Your task to perform on an android device: Show the shopping cart on ebay.com. Add "logitech g933" to the cart on ebay.com Image 0: 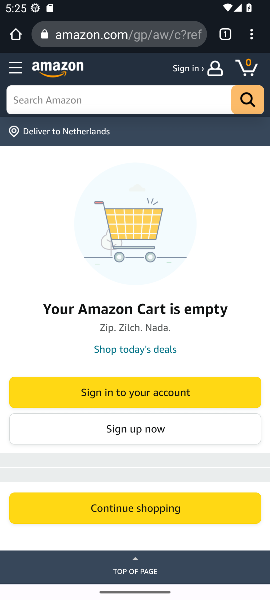
Step 0: press home button
Your task to perform on an android device: Show the shopping cart on ebay.com. Add "logitech g933" to the cart on ebay.com Image 1: 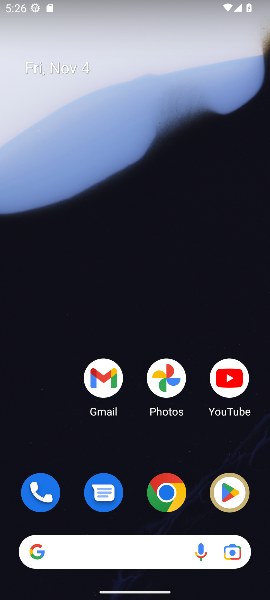
Step 1: drag from (140, 459) to (52, 3)
Your task to perform on an android device: Show the shopping cart on ebay.com. Add "logitech g933" to the cart on ebay.com Image 2: 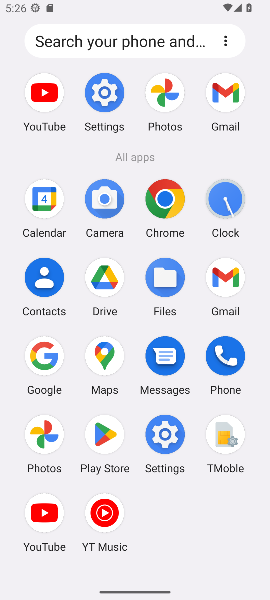
Step 2: click (160, 194)
Your task to perform on an android device: Show the shopping cart on ebay.com. Add "logitech g933" to the cart on ebay.com Image 3: 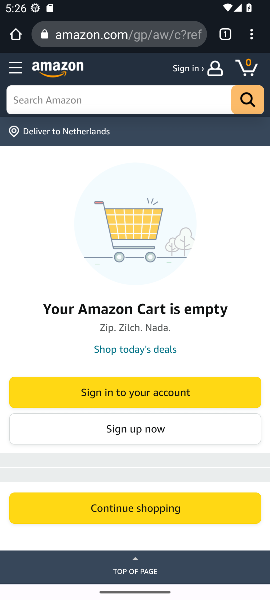
Step 3: click (135, 38)
Your task to perform on an android device: Show the shopping cart on ebay.com. Add "logitech g933" to the cart on ebay.com Image 4: 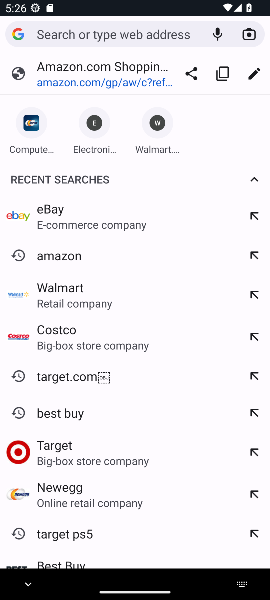
Step 4: type "ebay.com"
Your task to perform on an android device: Show the shopping cart on ebay.com. Add "logitech g933" to the cart on ebay.com Image 5: 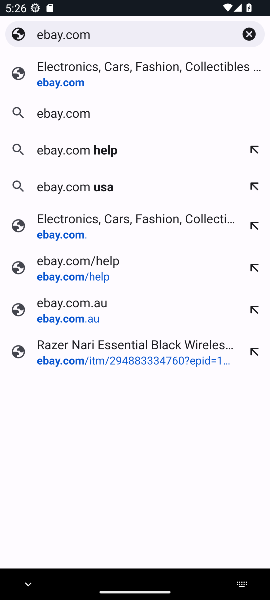
Step 5: press enter
Your task to perform on an android device: Show the shopping cart on ebay.com. Add "logitech g933" to the cart on ebay.com Image 6: 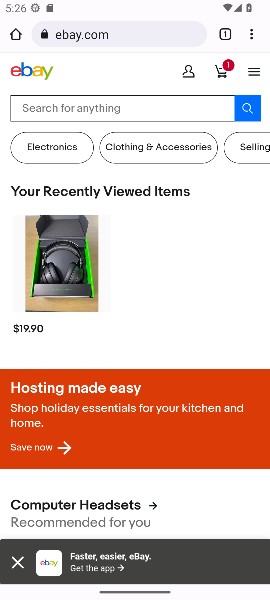
Step 6: click (141, 102)
Your task to perform on an android device: Show the shopping cart on ebay.com. Add "logitech g933" to the cart on ebay.com Image 7: 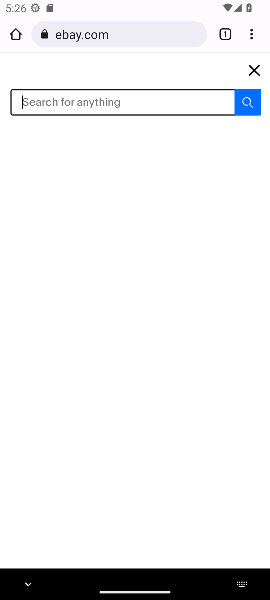
Step 7: type "logitech g933"
Your task to perform on an android device: Show the shopping cart on ebay.com. Add "logitech g933" to the cart on ebay.com Image 8: 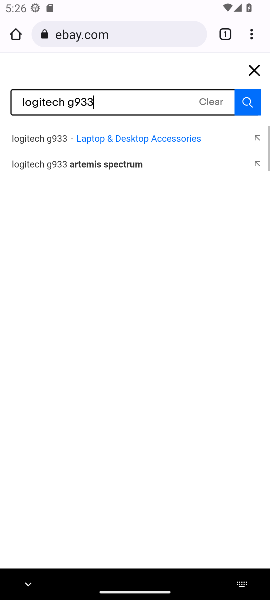
Step 8: press enter
Your task to perform on an android device: Show the shopping cart on ebay.com. Add "logitech g933" to the cart on ebay.com Image 9: 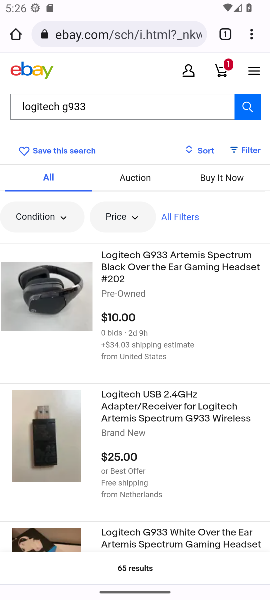
Step 9: click (117, 264)
Your task to perform on an android device: Show the shopping cart on ebay.com. Add "logitech g933" to the cart on ebay.com Image 10: 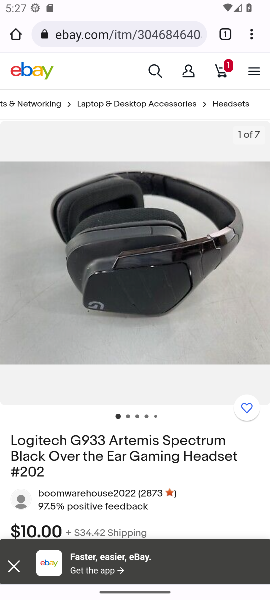
Step 10: task complete